Your task to perform on an android device: Add apple airpods pro to the cart on bestbuy.com, then select checkout. Image 0: 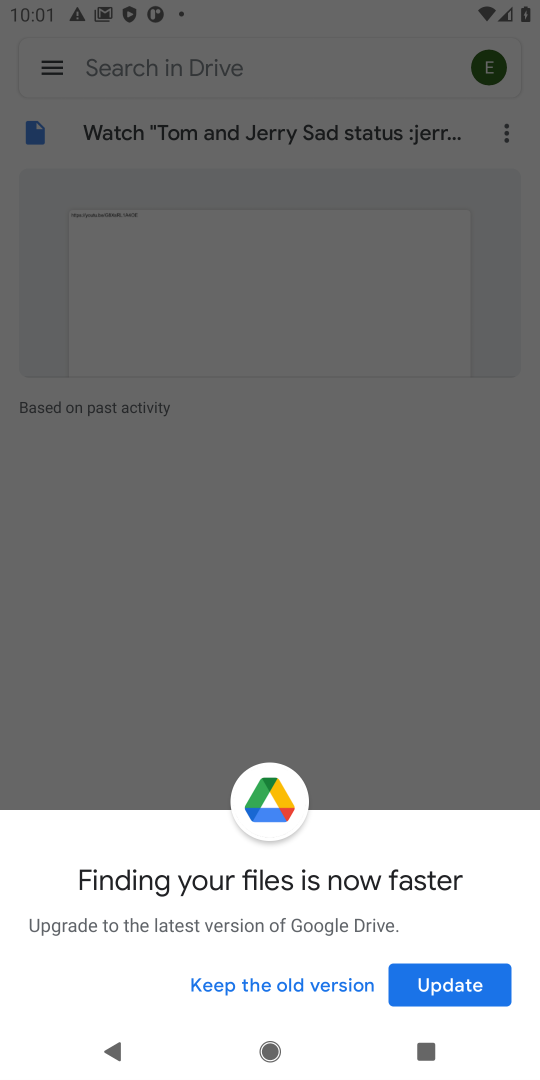
Step 0: press home button
Your task to perform on an android device: Add apple airpods pro to the cart on bestbuy.com, then select checkout. Image 1: 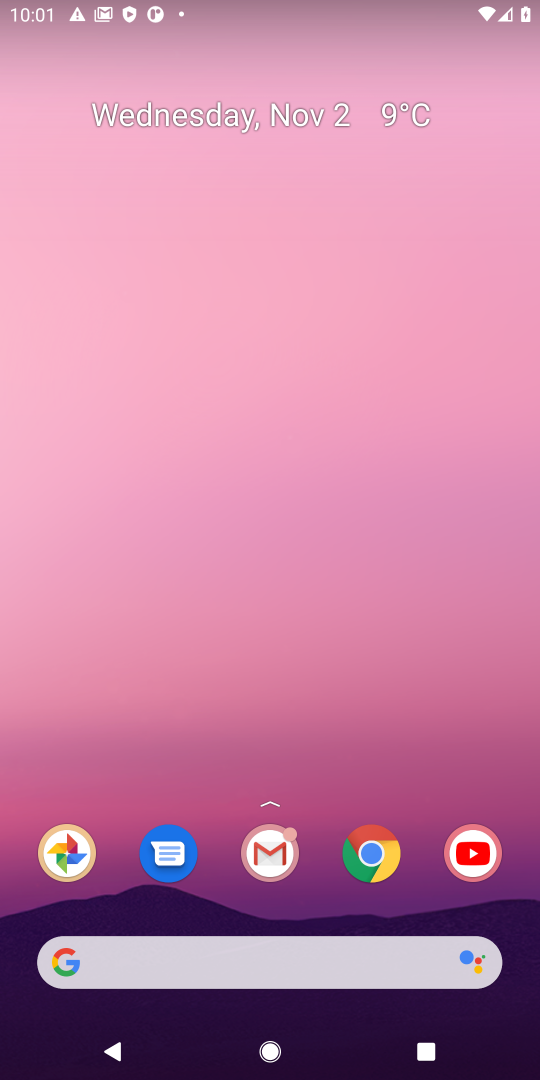
Step 1: click (373, 856)
Your task to perform on an android device: Add apple airpods pro to the cart on bestbuy.com, then select checkout. Image 2: 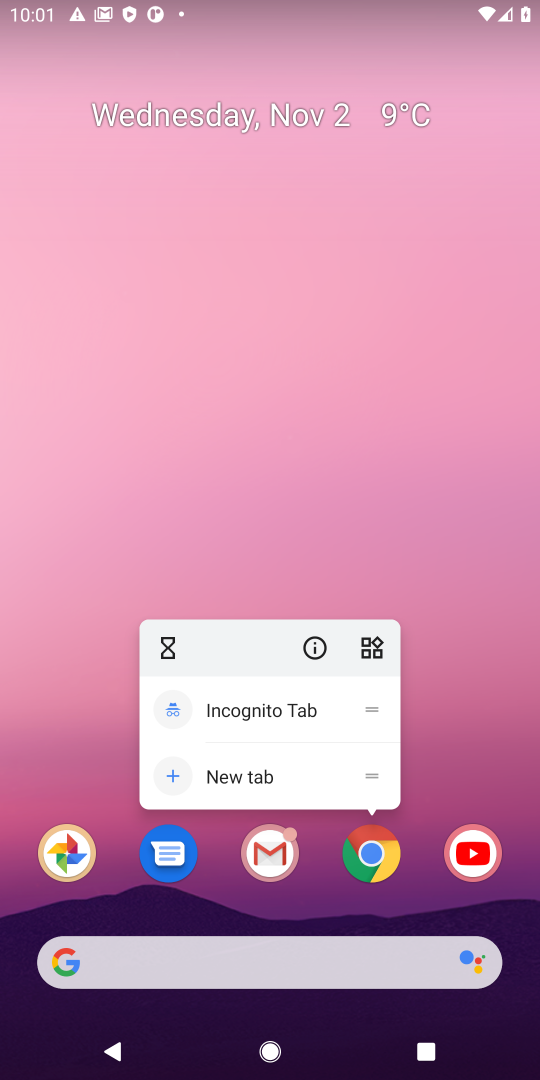
Step 2: click (373, 860)
Your task to perform on an android device: Add apple airpods pro to the cart on bestbuy.com, then select checkout. Image 3: 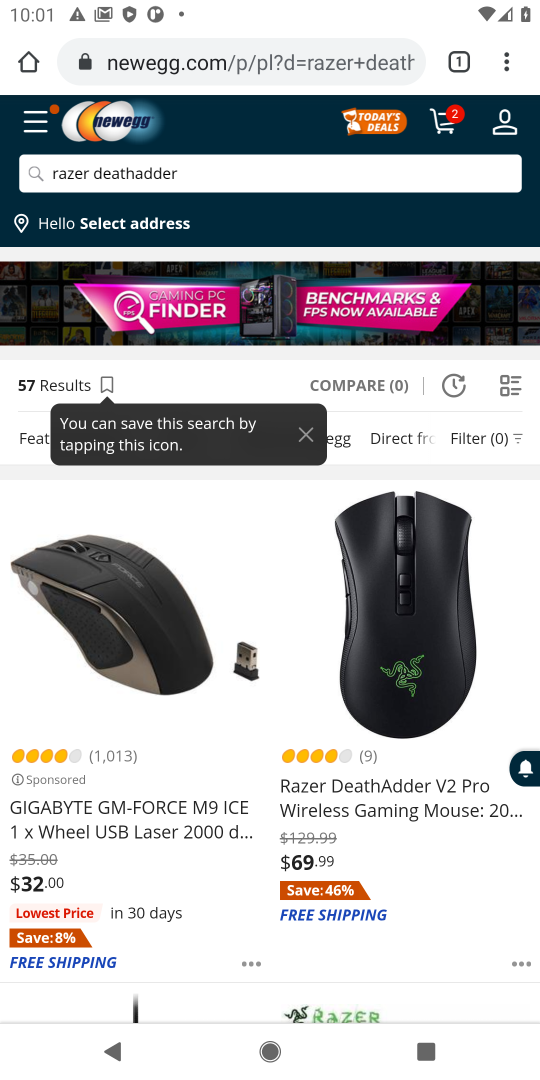
Step 3: click (308, 63)
Your task to perform on an android device: Add apple airpods pro to the cart on bestbuy.com, then select checkout. Image 4: 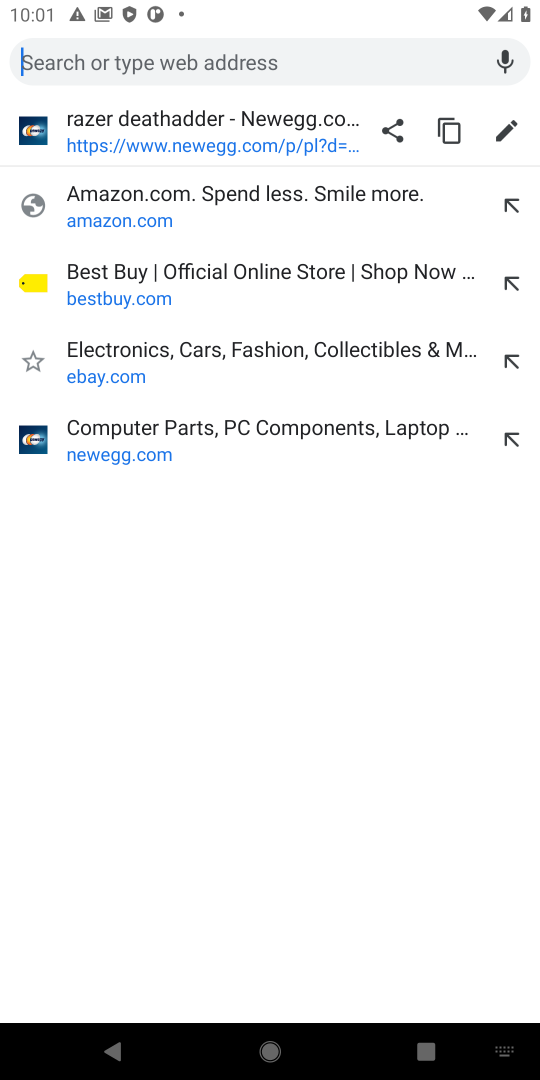
Step 4: click (73, 301)
Your task to perform on an android device: Add apple airpods pro to the cart on bestbuy.com, then select checkout. Image 5: 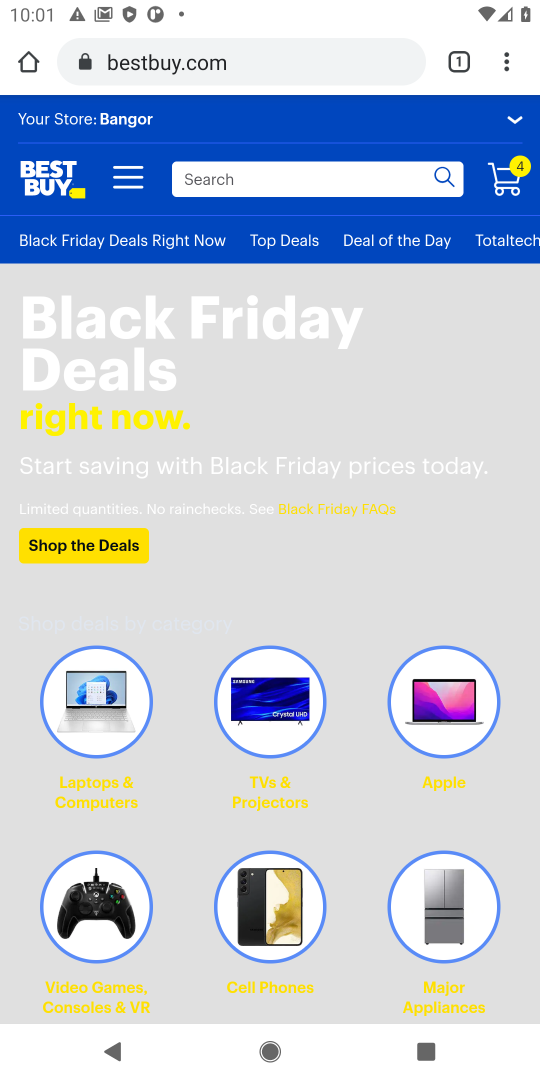
Step 5: click (195, 180)
Your task to perform on an android device: Add apple airpods pro to the cart on bestbuy.com, then select checkout. Image 6: 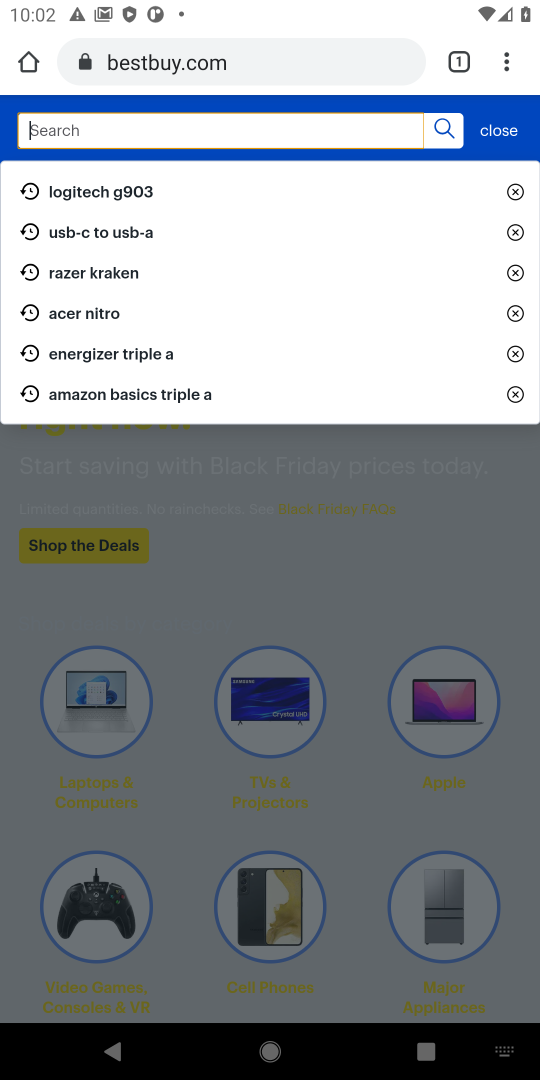
Step 6: type "apple airpods pro"
Your task to perform on an android device: Add apple airpods pro to the cart on bestbuy.com, then select checkout. Image 7: 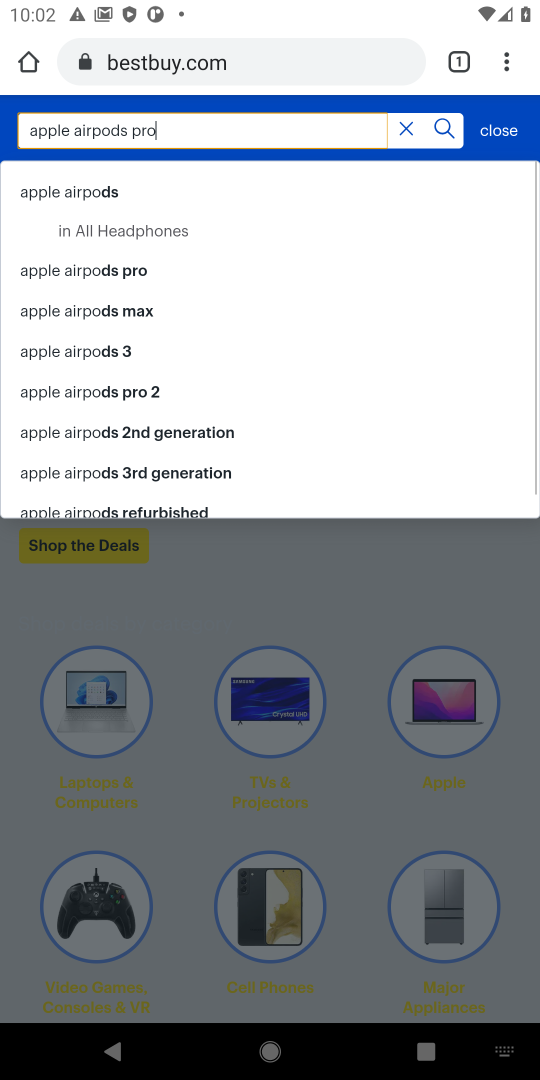
Step 7: press enter
Your task to perform on an android device: Add apple airpods pro to the cart on bestbuy.com, then select checkout. Image 8: 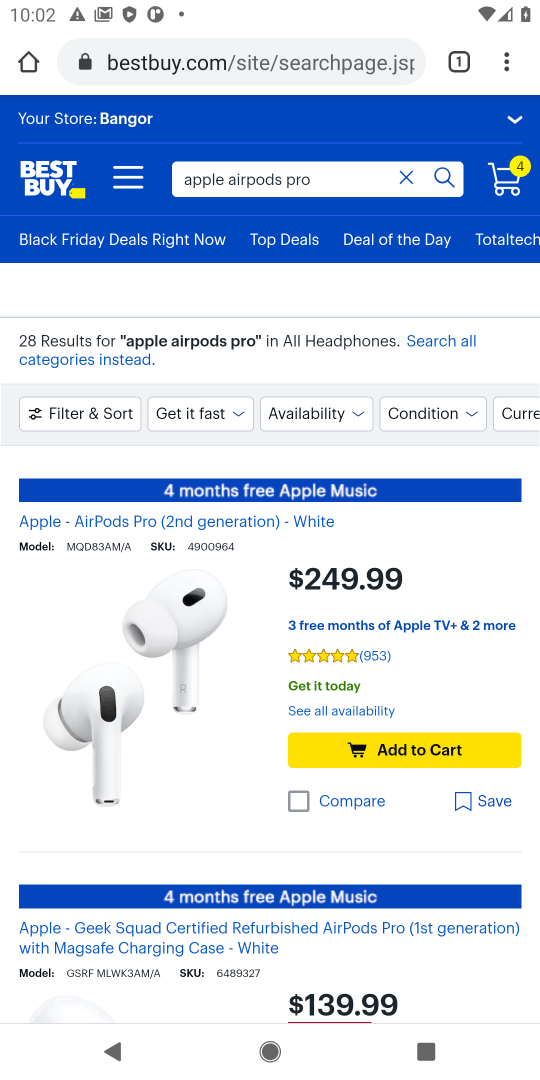
Step 8: click (408, 750)
Your task to perform on an android device: Add apple airpods pro to the cart on bestbuy.com, then select checkout. Image 9: 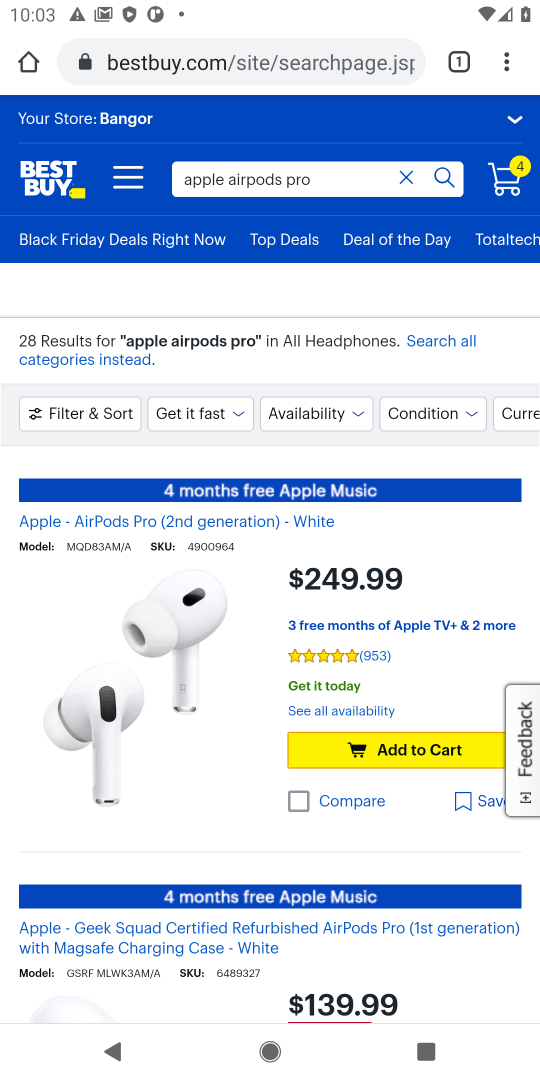
Step 9: click (502, 176)
Your task to perform on an android device: Add apple airpods pro to the cart on bestbuy.com, then select checkout. Image 10: 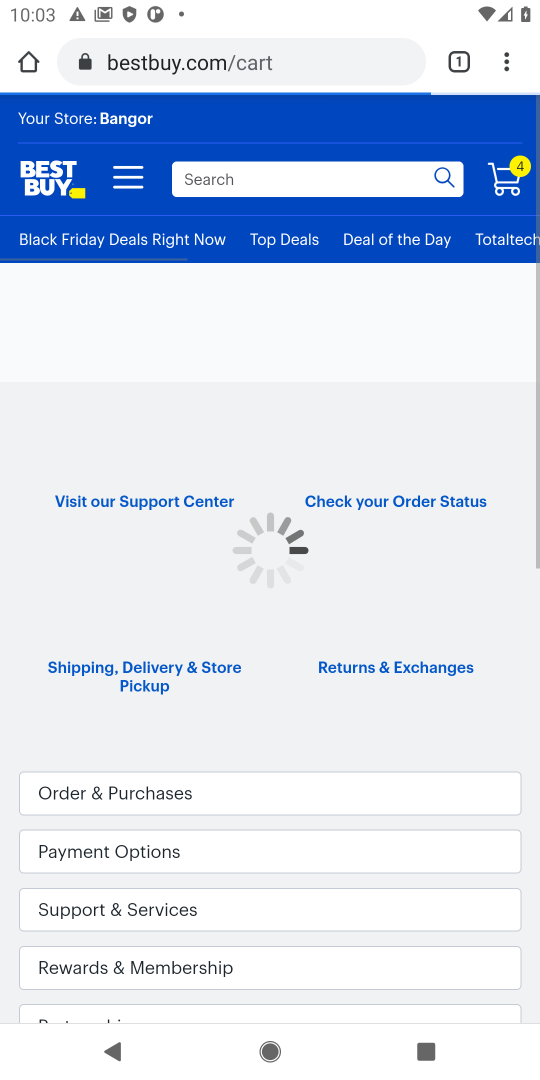
Step 10: click (502, 176)
Your task to perform on an android device: Add apple airpods pro to the cart on bestbuy.com, then select checkout. Image 11: 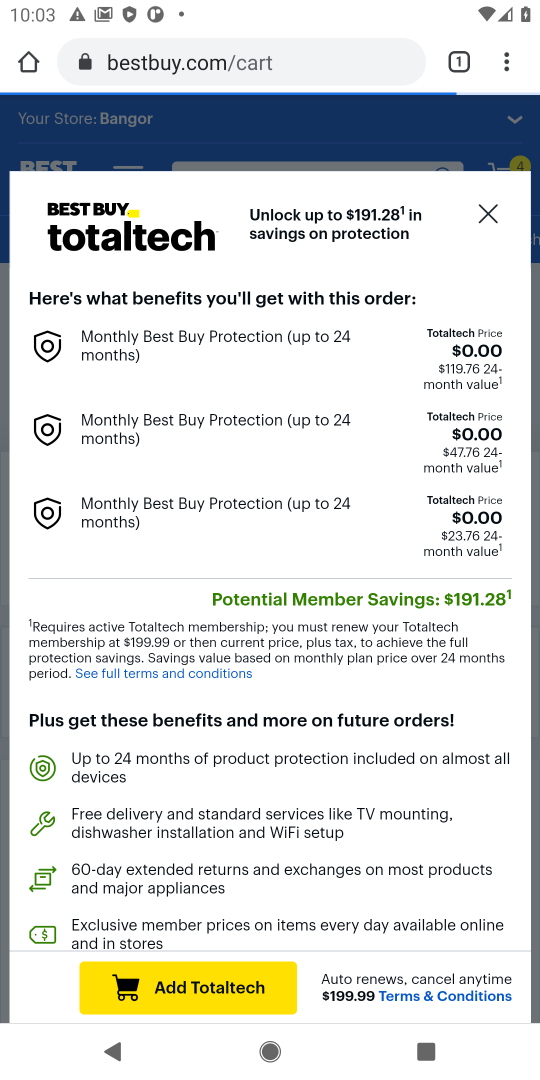
Step 11: click (481, 208)
Your task to perform on an android device: Add apple airpods pro to the cart on bestbuy.com, then select checkout. Image 12: 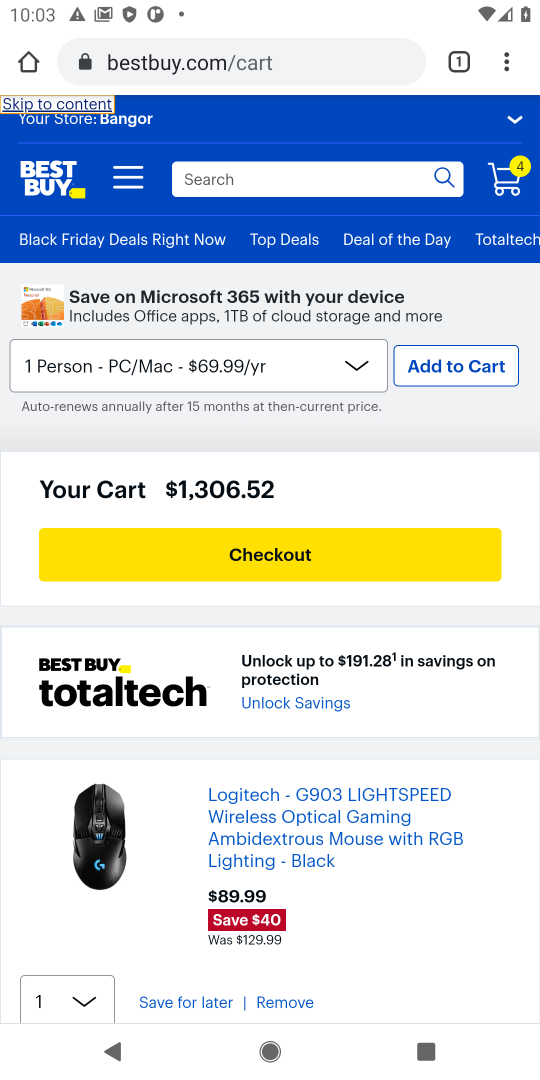
Step 12: drag from (311, 788) to (454, 393)
Your task to perform on an android device: Add apple airpods pro to the cart on bestbuy.com, then select checkout. Image 13: 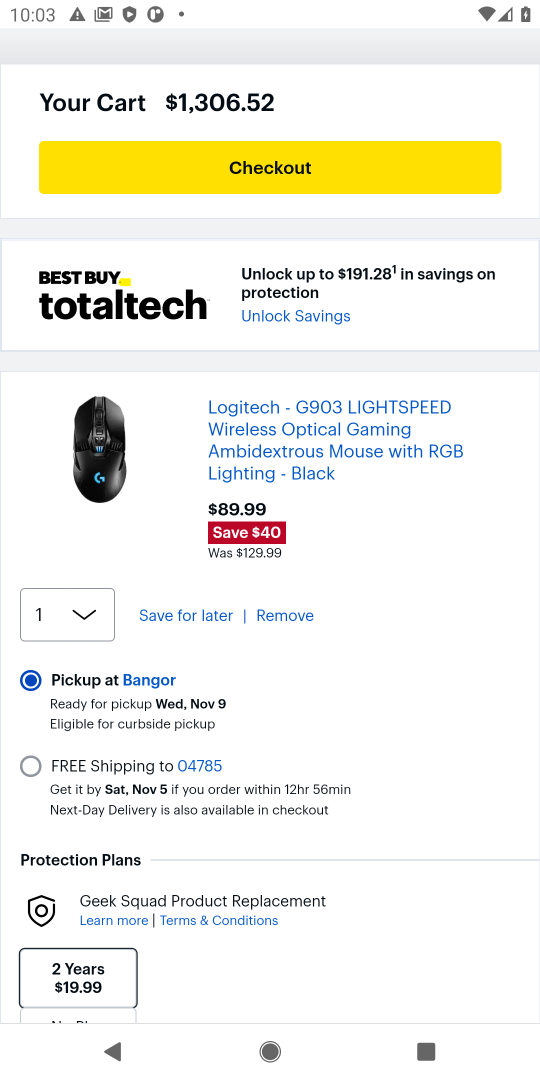
Step 13: click (275, 608)
Your task to perform on an android device: Add apple airpods pro to the cart on bestbuy.com, then select checkout. Image 14: 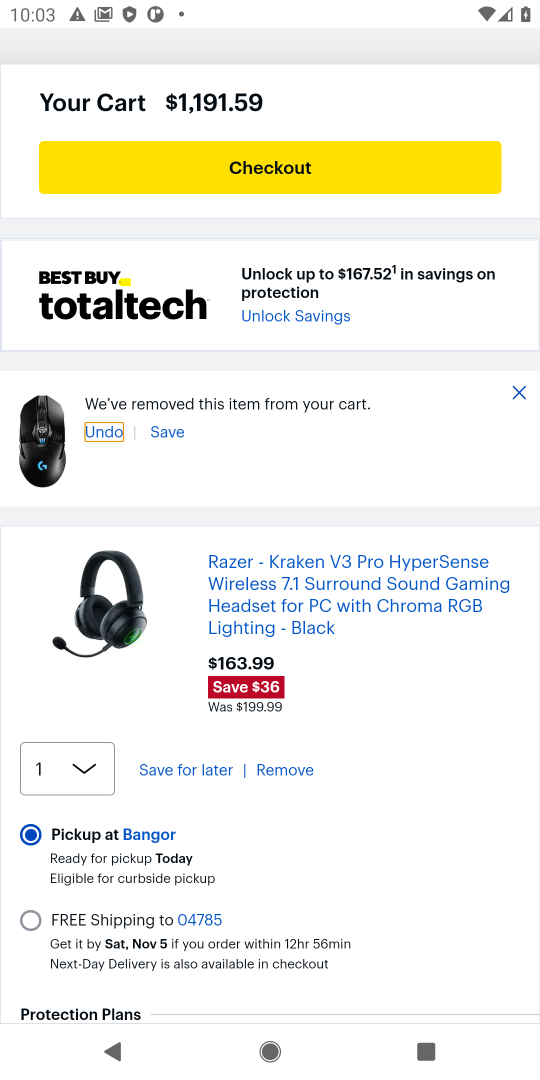
Step 14: drag from (305, 668) to (413, 404)
Your task to perform on an android device: Add apple airpods pro to the cart on bestbuy.com, then select checkout. Image 15: 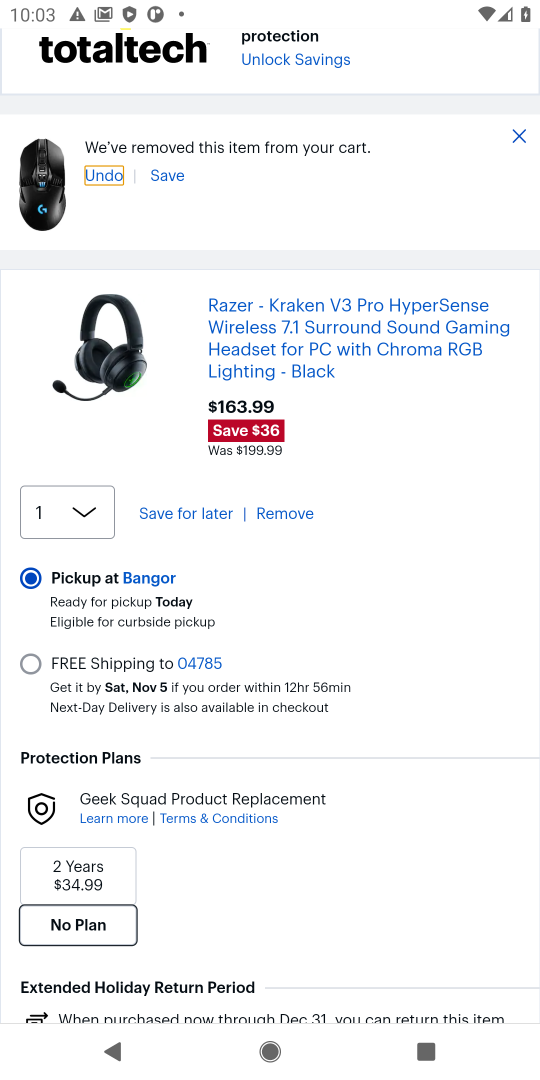
Step 15: click (288, 553)
Your task to perform on an android device: Add apple airpods pro to the cart on bestbuy.com, then select checkout. Image 16: 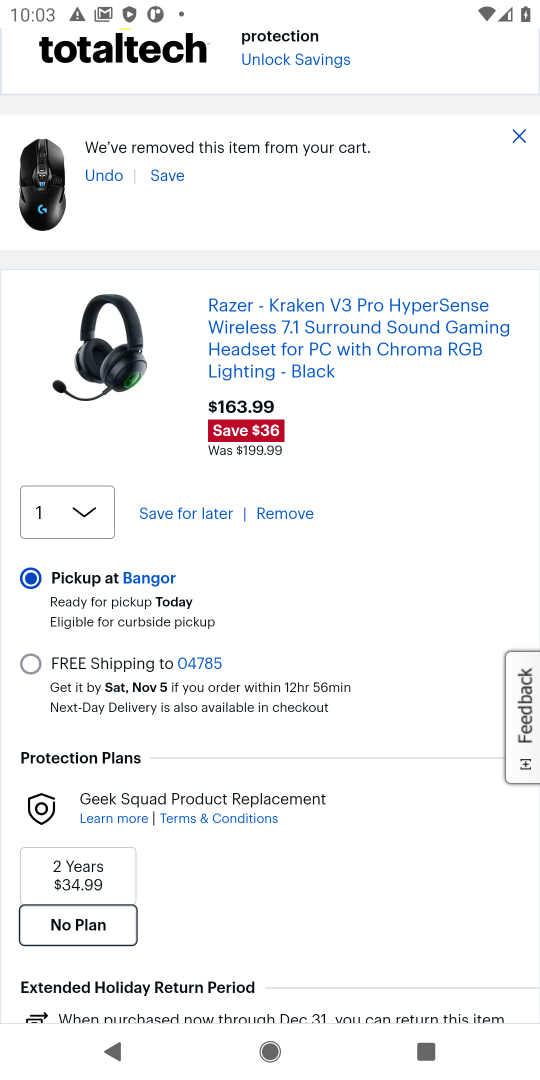
Step 16: drag from (328, 779) to (437, 496)
Your task to perform on an android device: Add apple airpods pro to the cart on bestbuy.com, then select checkout. Image 17: 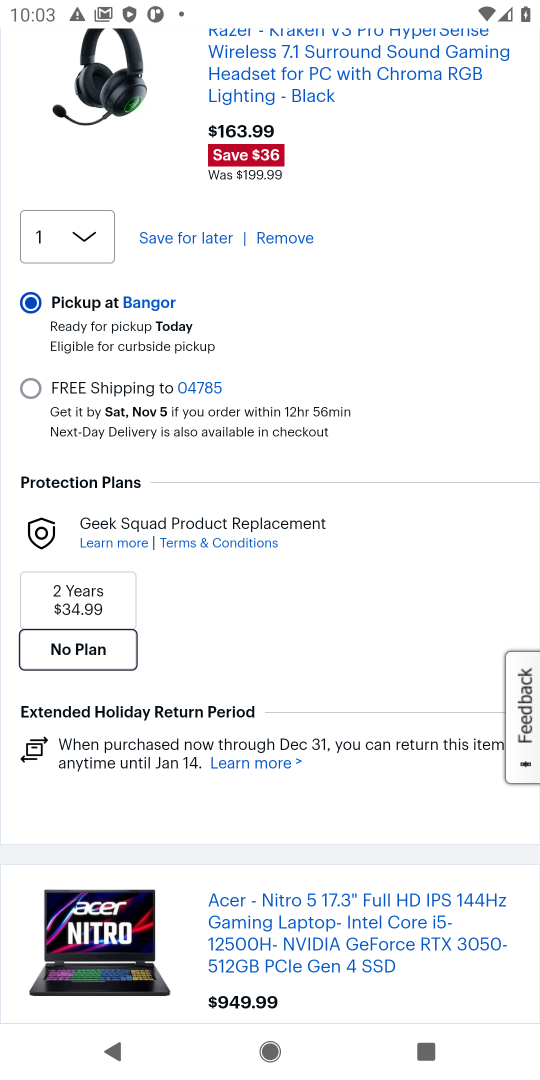
Step 17: click (279, 235)
Your task to perform on an android device: Add apple airpods pro to the cart on bestbuy.com, then select checkout. Image 18: 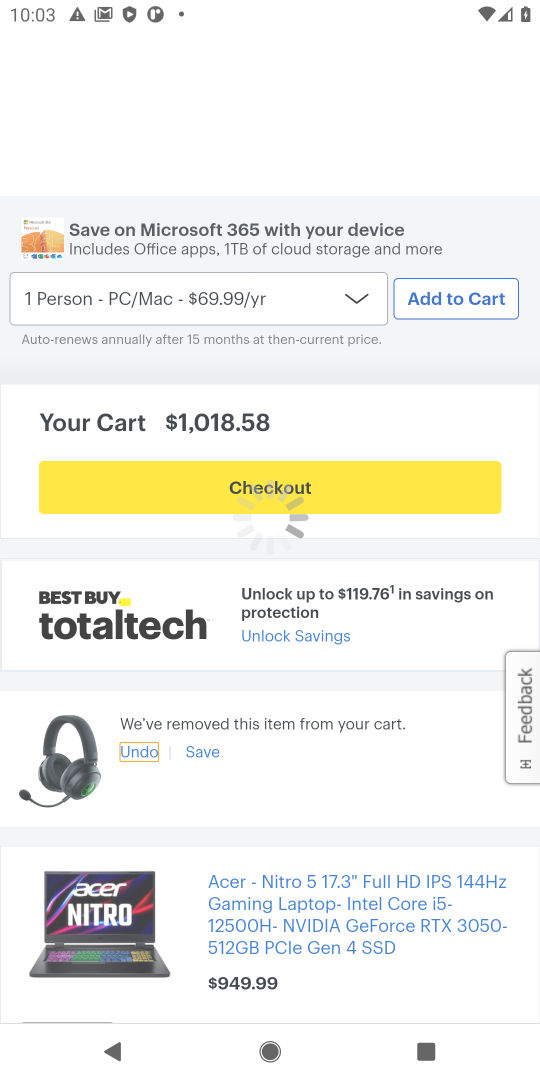
Step 18: drag from (289, 782) to (464, 236)
Your task to perform on an android device: Add apple airpods pro to the cart on bestbuy.com, then select checkout. Image 19: 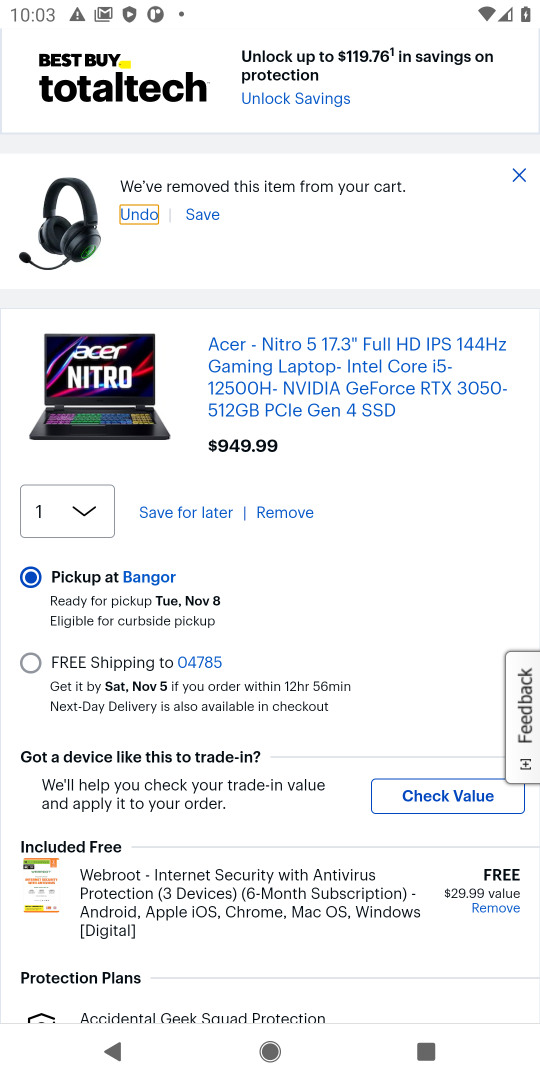
Step 19: click (290, 509)
Your task to perform on an android device: Add apple airpods pro to the cart on bestbuy.com, then select checkout. Image 20: 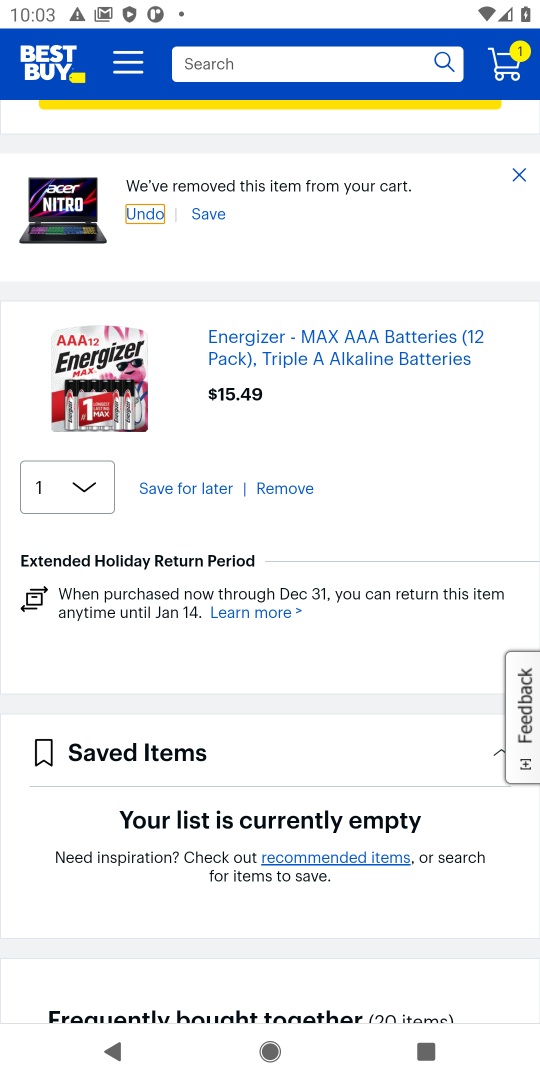
Step 20: click (283, 478)
Your task to perform on an android device: Add apple airpods pro to the cart on bestbuy.com, then select checkout. Image 21: 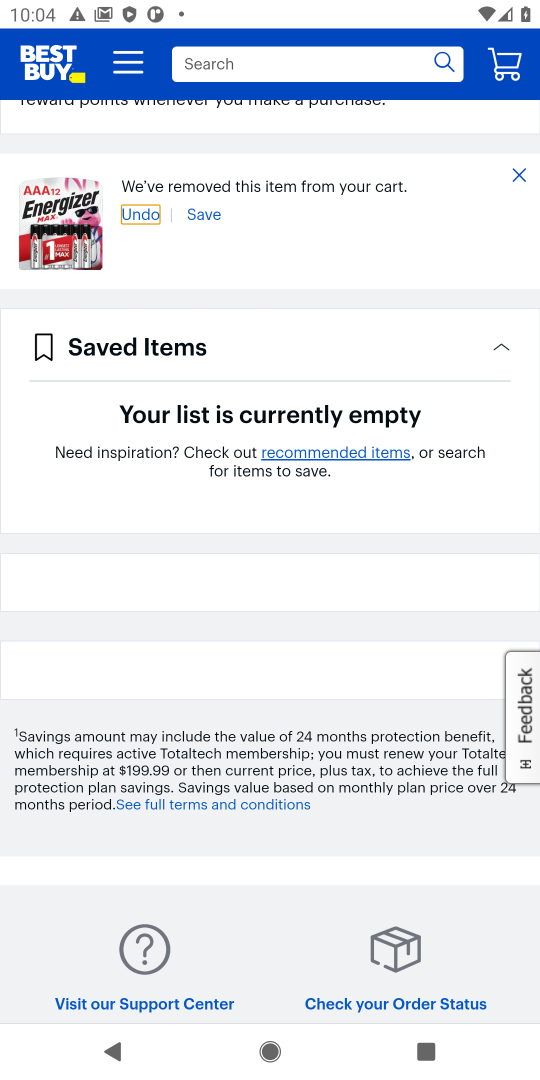
Step 21: drag from (361, 293) to (347, 831)
Your task to perform on an android device: Add apple airpods pro to the cart on bestbuy.com, then select checkout. Image 22: 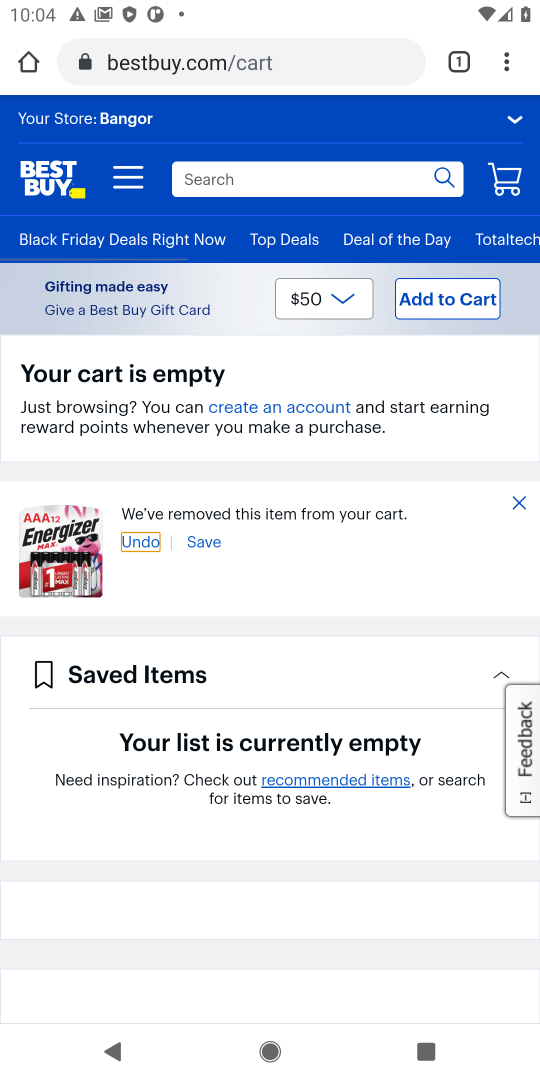
Step 22: press back button
Your task to perform on an android device: Add apple airpods pro to the cart on bestbuy.com, then select checkout. Image 23: 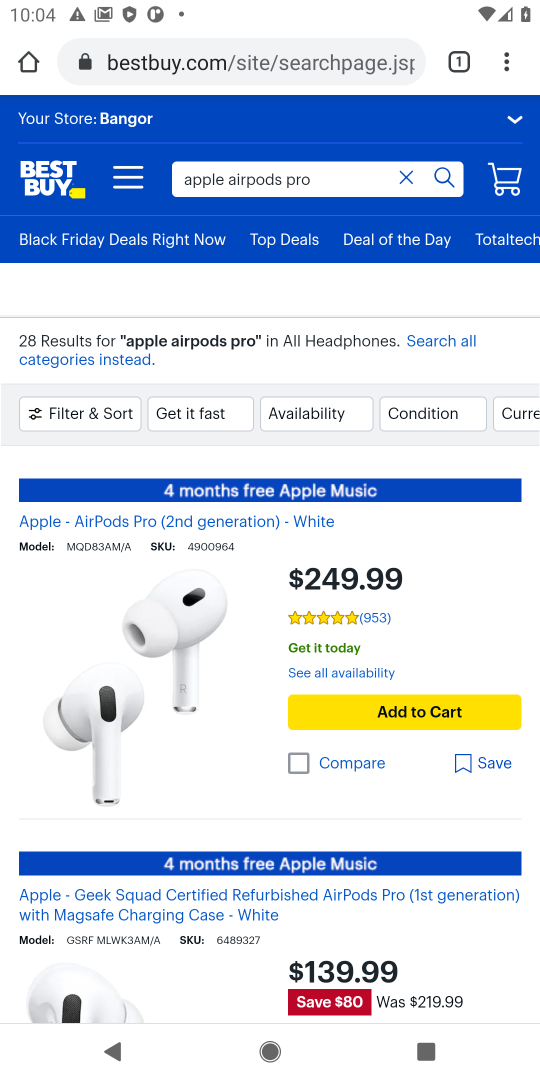
Step 23: click (402, 709)
Your task to perform on an android device: Add apple airpods pro to the cart on bestbuy.com, then select checkout. Image 24: 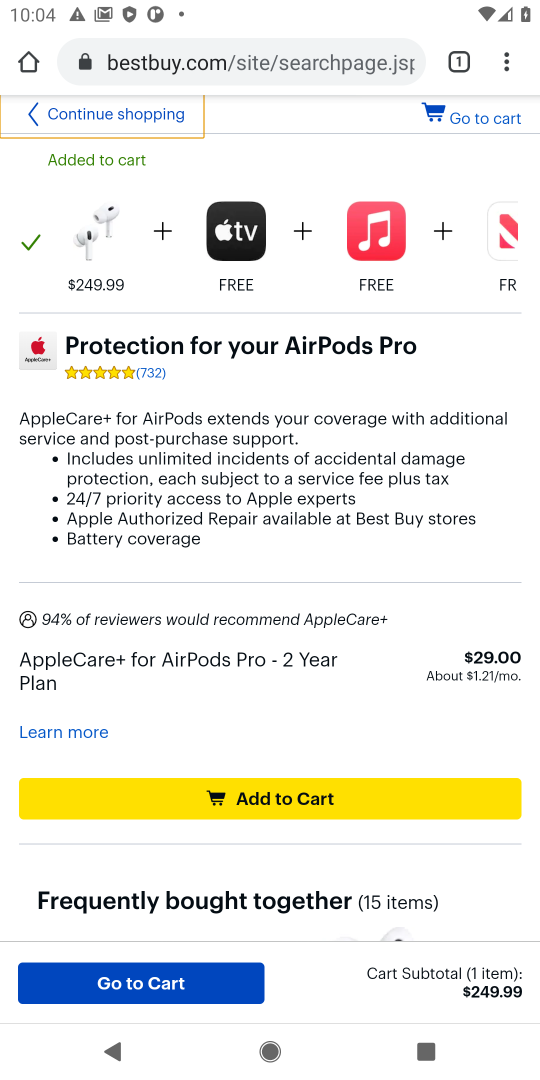
Step 24: drag from (273, 698) to (275, 927)
Your task to perform on an android device: Add apple airpods pro to the cart on bestbuy.com, then select checkout. Image 25: 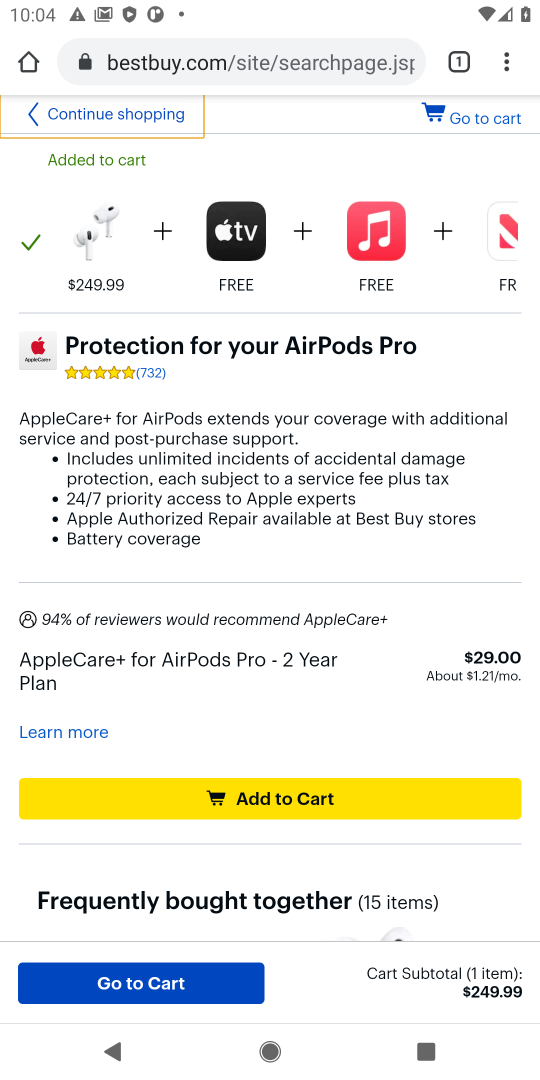
Step 25: drag from (336, 464) to (287, 911)
Your task to perform on an android device: Add apple airpods pro to the cart on bestbuy.com, then select checkout. Image 26: 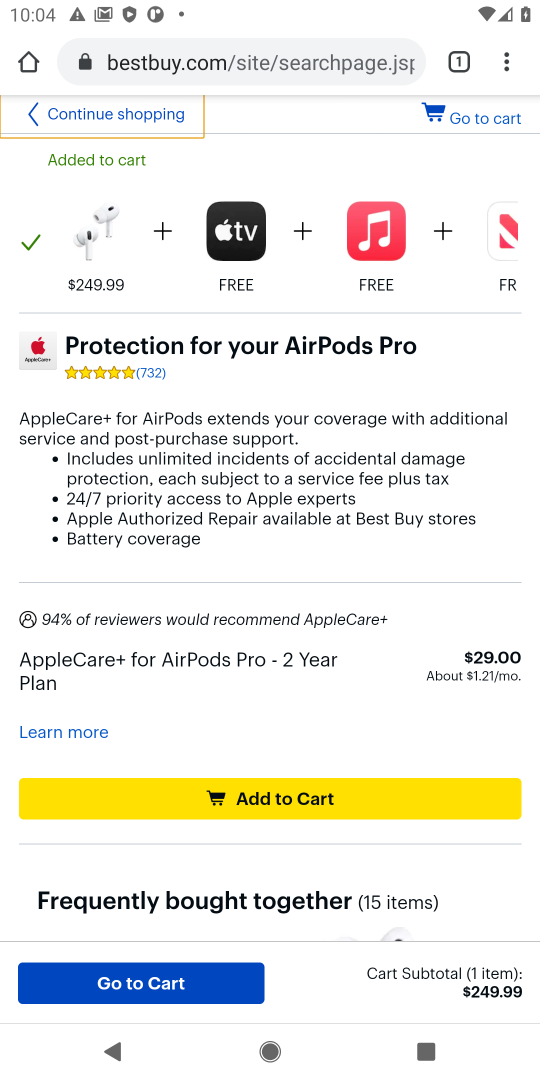
Step 26: click (316, 799)
Your task to perform on an android device: Add apple airpods pro to the cart on bestbuy.com, then select checkout. Image 27: 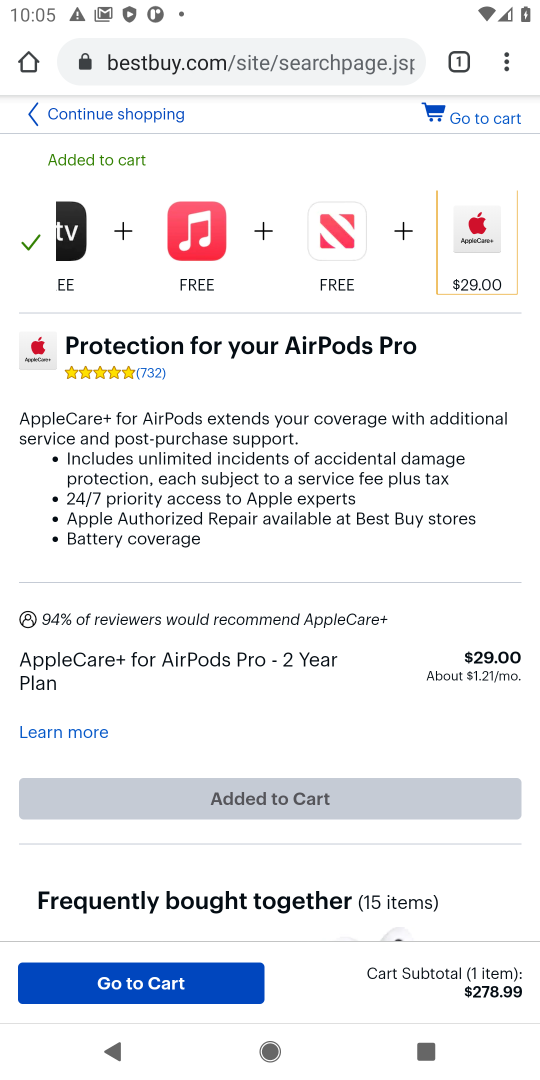
Step 27: click (145, 983)
Your task to perform on an android device: Add apple airpods pro to the cart on bestbuy.com, then select checkout. Image 28: 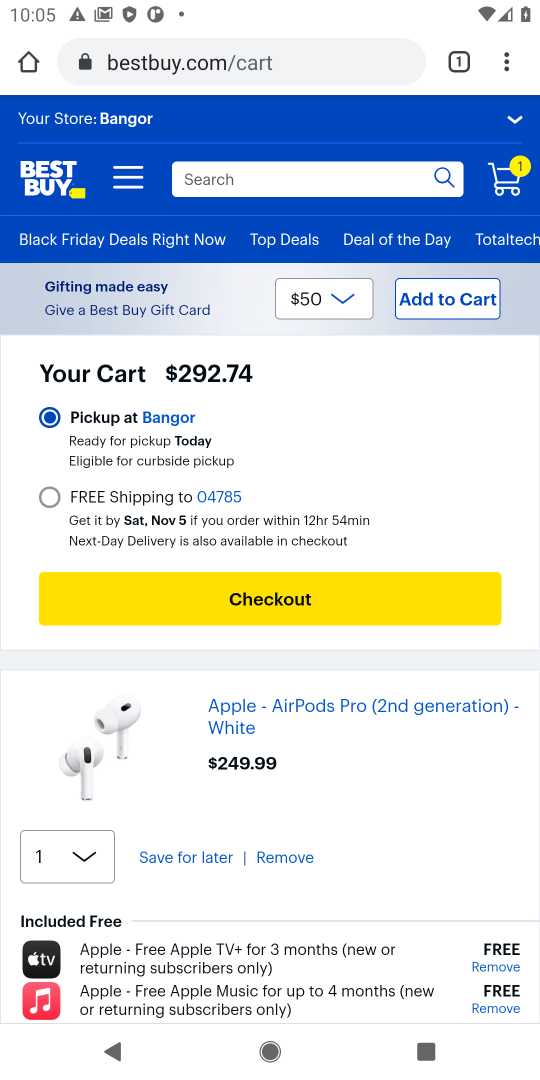
Step 28: task complete